Your task to perform on an android device: turn on data saver in the chrome app Image 0: 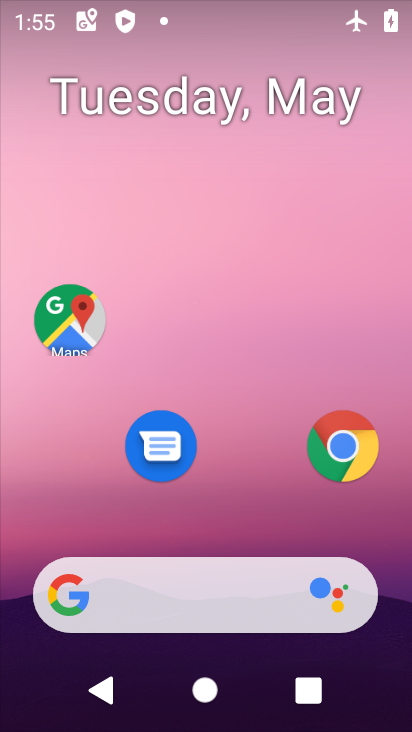
Step 0: drag from (217, 553) to (204, 107)
Your task to perform on an android device: turn on data saver in the chrome app Image 1: 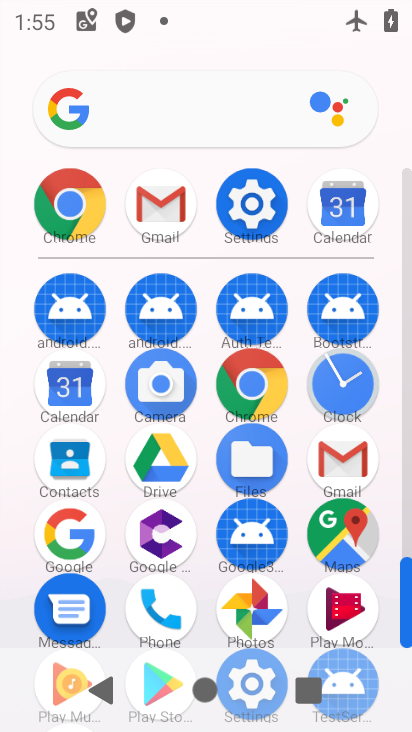
Step 1: click (236, 392)
Your task to perform on an android device: turn on data saver in the chrome app Image 2: 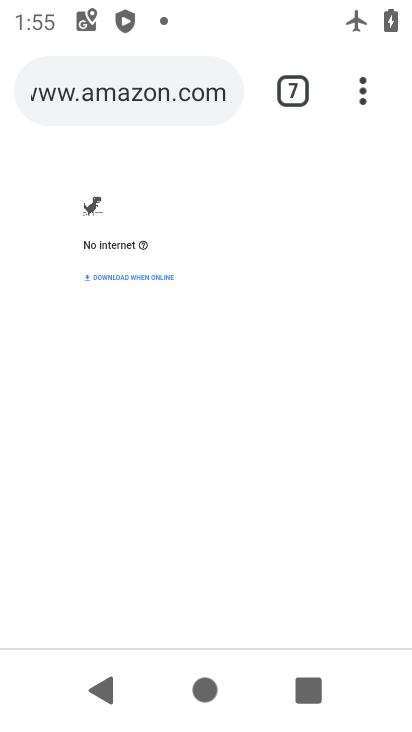
Step 2: press home button
Your task to perform on an android device: turn on data saver in the chrome app Image 3: 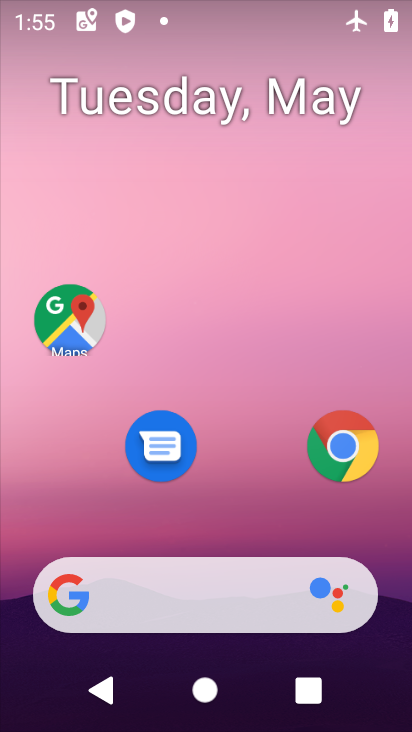
Step 3: click (362, 447)
Your task to perform on an android device: turn on data saver in the chrome app Image 4: 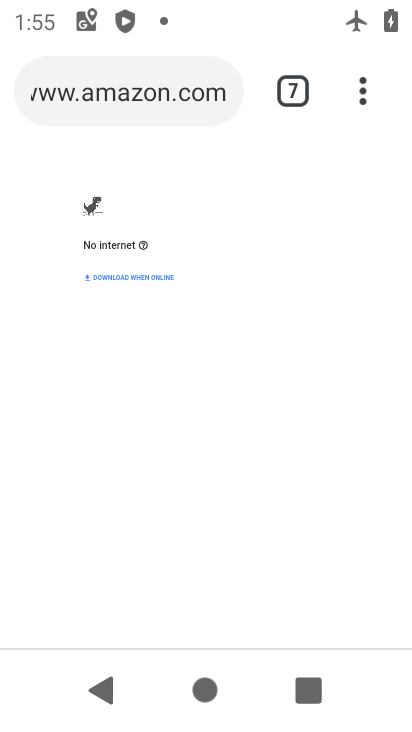
Step 4: click (359, 98)
Your task to perform on an android device: turn on data saver in the chrome app Image 5: 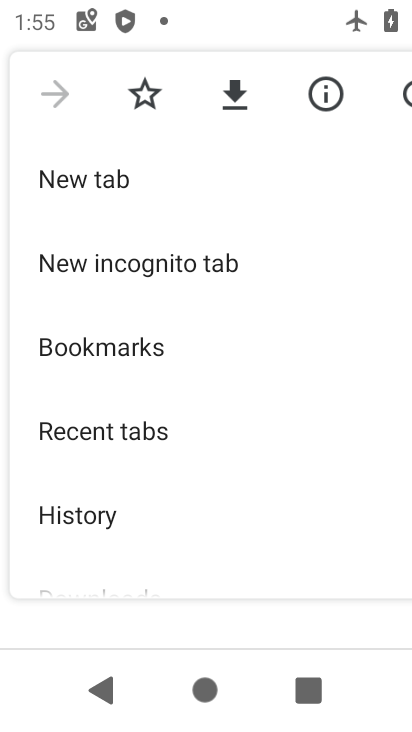
Step 5: drag from (181, 509) to (153, 29)
Your task to perform on an android device: turn on data saver in the chrome app Image 6: 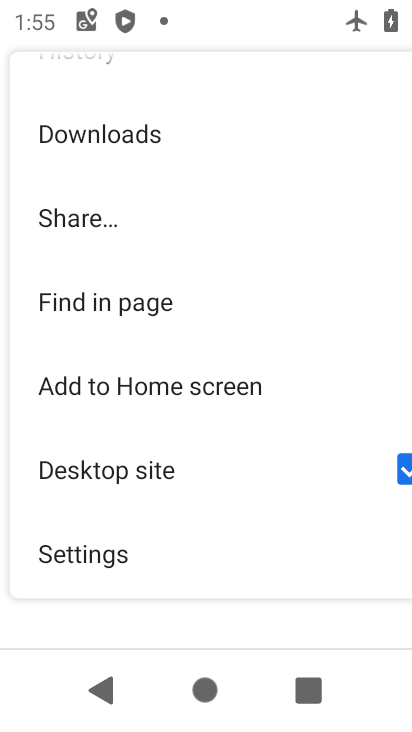
Step 6: click (112, 541)
Your task to perform on an android device: turn on data saver in the chrome app Image 7: 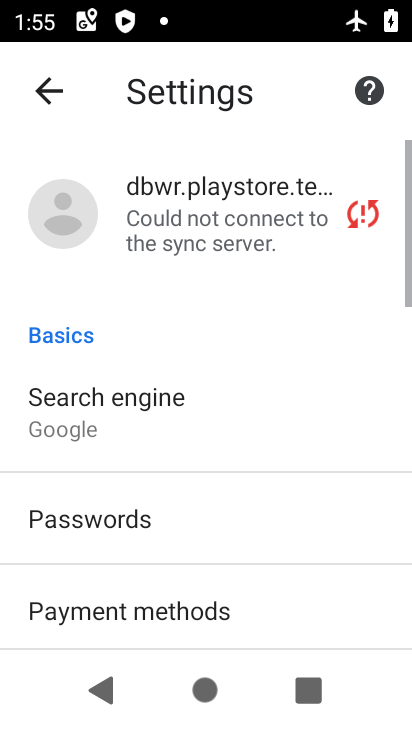
Step 7: drag from (132, 528) to (115, 107)
Your task to perform on an android device: turn on data saver in the chrome app Image 8: 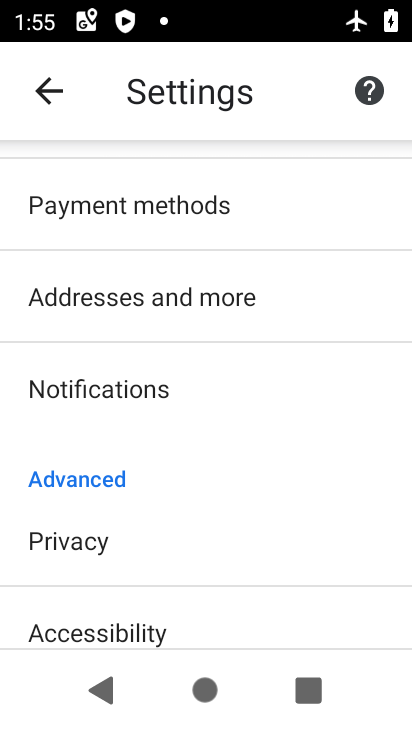
Step 8: drag from (151, 596) to (130, 196)
Your task to perform on an android device: turn on data saver in the chrome app Image 9: 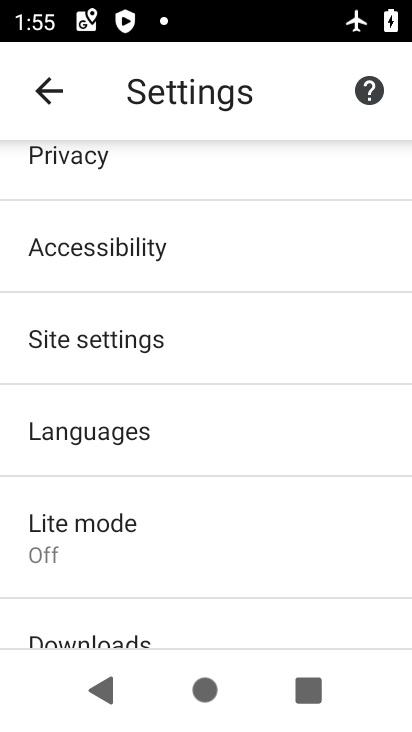
Step 9: click (116, 560)
Your task to perform on an android device: turn on data saver in the chrome app Image 10: 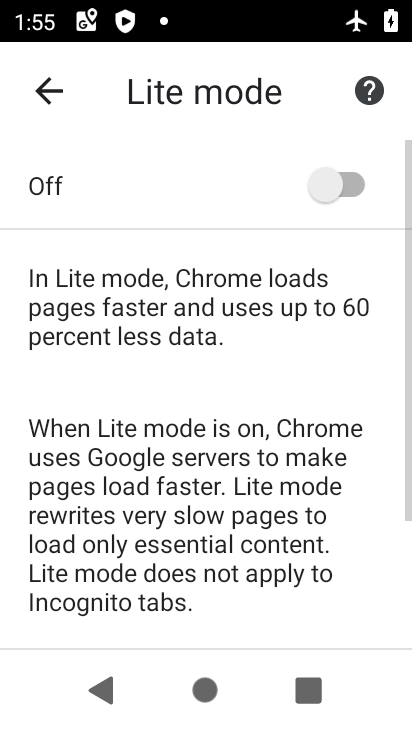
Step 10: click (310, 193)
Your task to perform on an android device: turn on data saver in the chrome app Image 11: 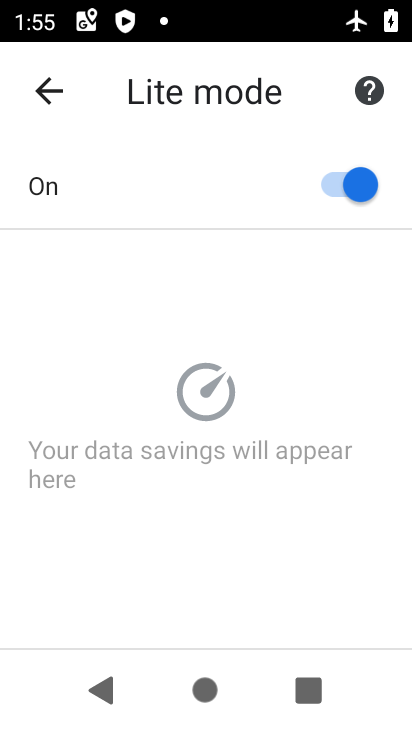
Step 11: task complete